Your task to perform on an android device: read, delete, or share a saved page in the chrome app Image 0: 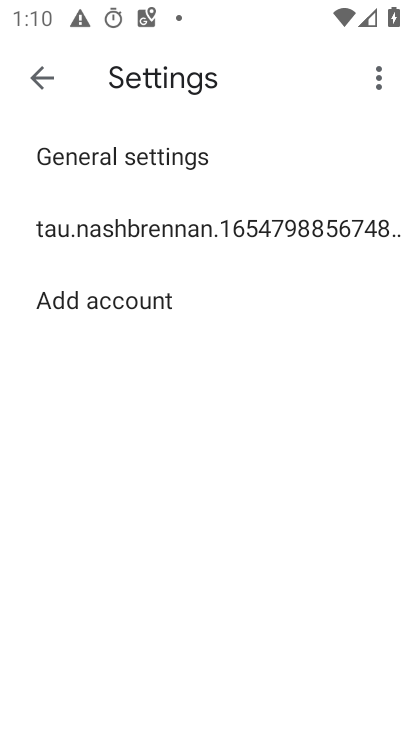
Step 0: press home button
Your task to perform on an android device: read, delete, or share a saved page in the chrome app Image 1: 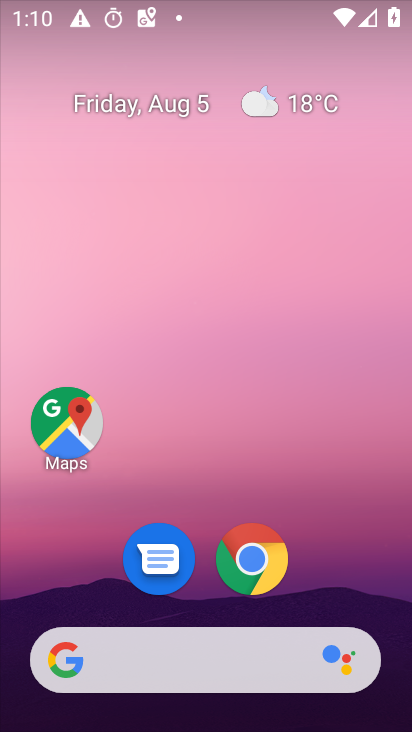
Step 1: click (269, 564)
Your task to perform on an android device: read, delete, or share a saved page in the chrome app Image 2: 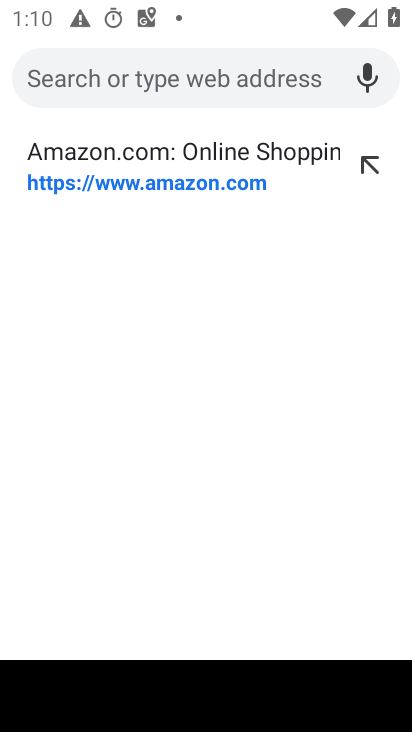
Step 2: click (184, 379)
Your task to perform on an android device: read, delete, or share a saved page in the chrome app Image 3: 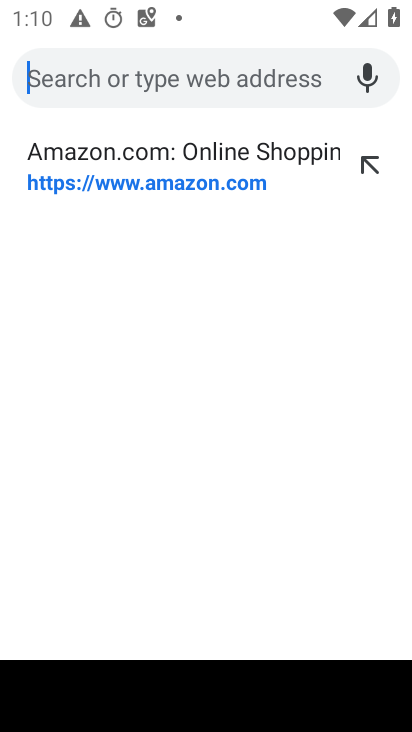
Step 3: task complete